Your task to perform on an android device: Search for pizza restaurants on Maps Image 0: 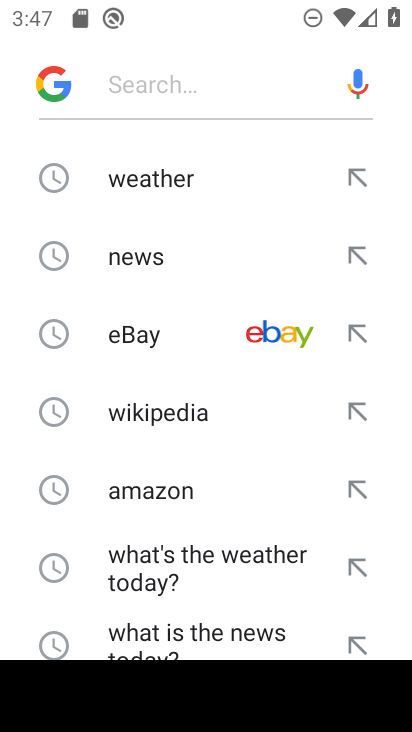
Step 0: press home button
Your task to perform on an android device: Search for pizza restaurants on Maps Image 1: 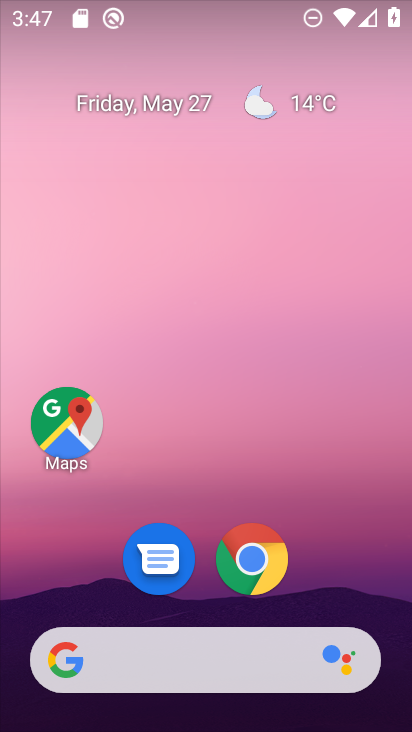
Step 1: drag from (352, 561) to (315, 126)
Your task to perform on an android device: Search for pizza restaurants on Maps Image 2: 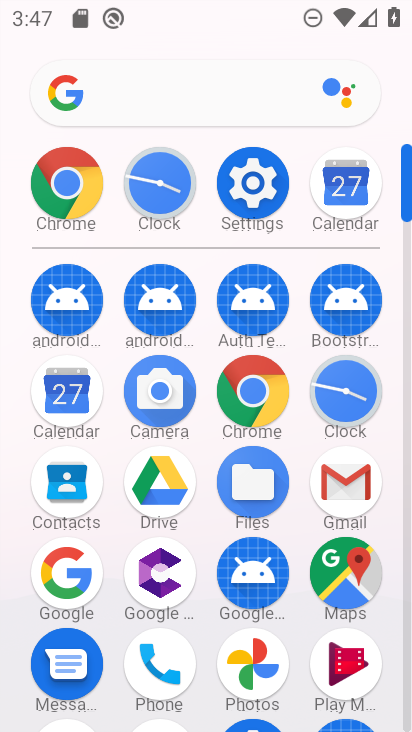
Step 2: click (354, 574)
Your task to perform on an android device: Search for pizza restaurants on Maps Image 3: 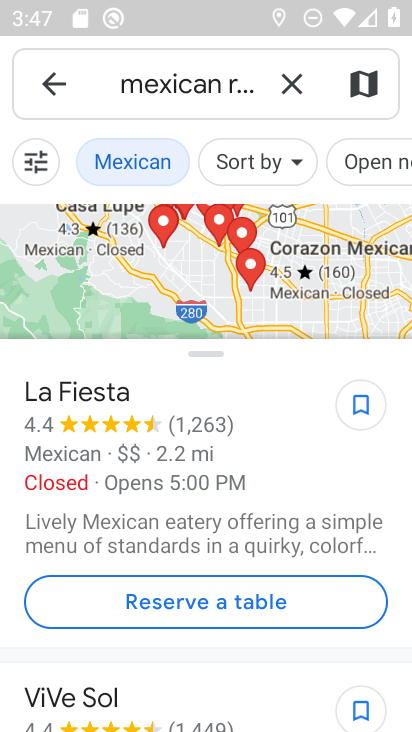
Step 3: click (286, 91)
Your task to perform on an android device: Search for pizza restaurants on Maps Image 4: 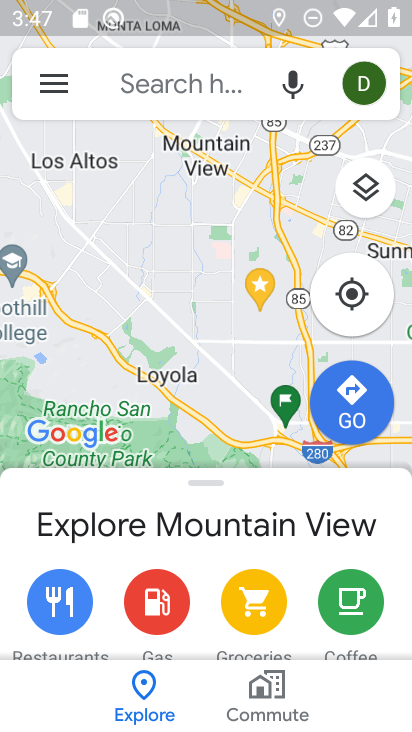
Step 4: type "pizza resturant"
Your task to perform on an android device: Search for pizza restaurants on Maps Image 5: 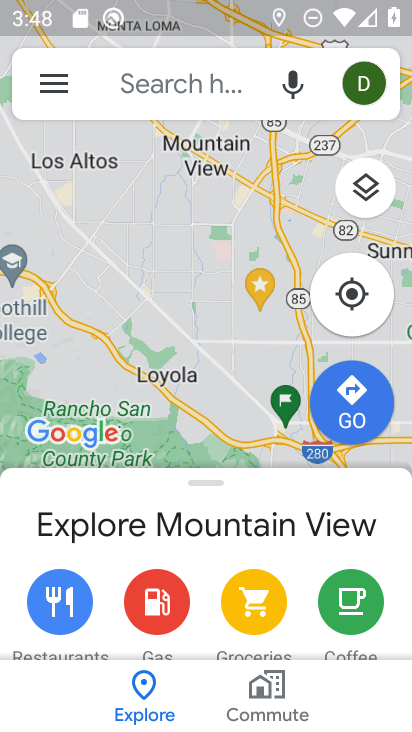
Step 5: click (200, 103)
Your task to perform on an android device: Search for pizza restaurants on Maps Image 6: 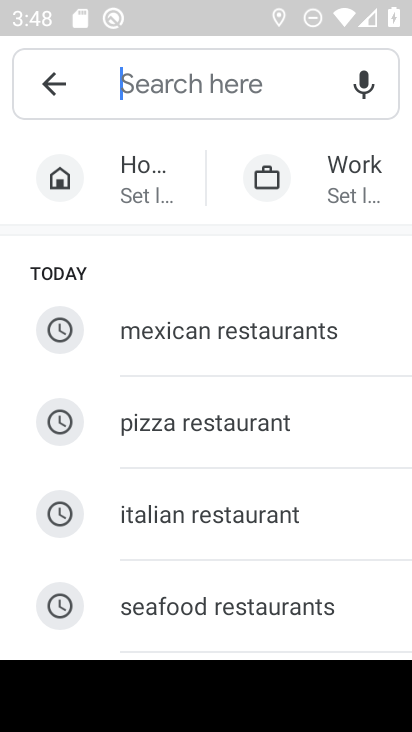
Step 6: click (183, 420)
Your task to perform on an android device: Search for pizza restaurants on Maps Image 7: 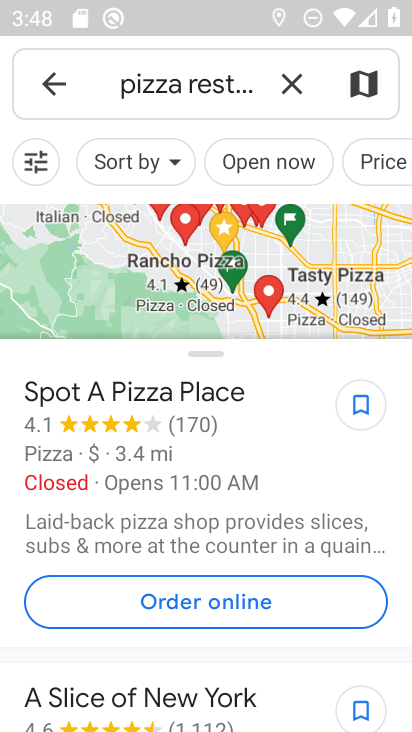
Step 7: task complete